Your task to perform on an android device: turn notification dots on Image 0: 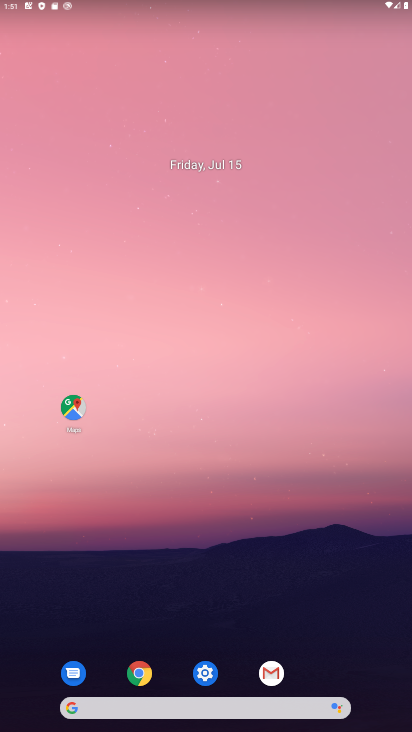
Step 0: press home button
Your task to perform on an android device: turn notification dots on Image 1: 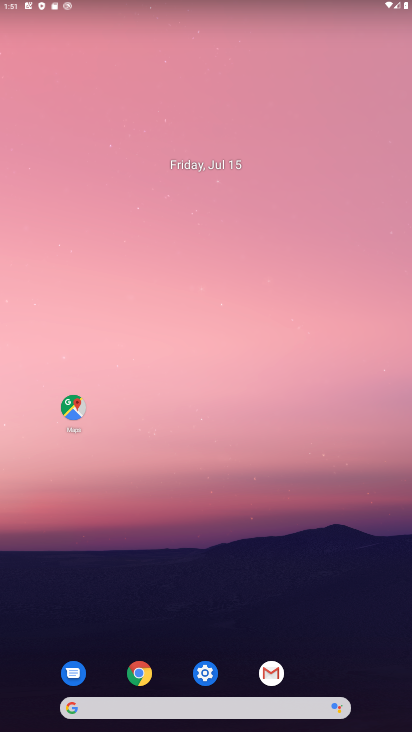
Step 1: click (203, 679)
Your task to perform on an android device: turn notification dots on Image 2: 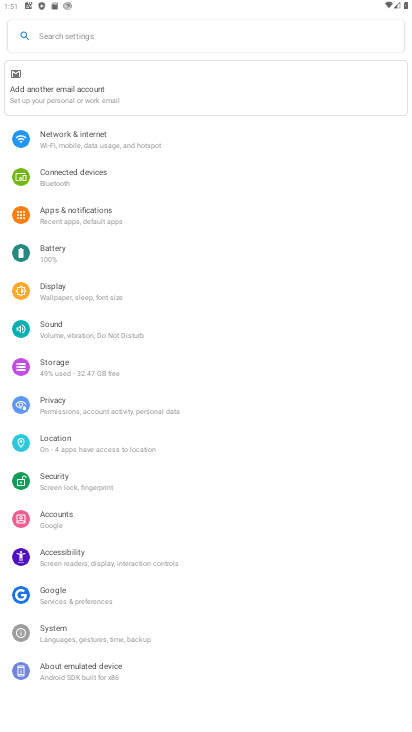
Step 2: click (63, 41)
Your task to perform on an android device: turn notification dots on Image 3: 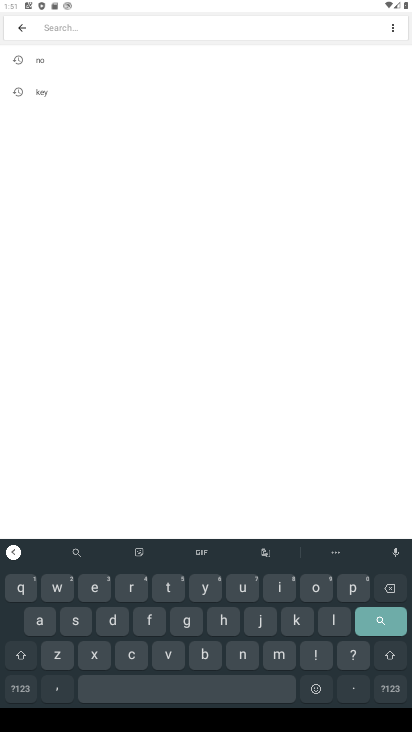
Step 3: click (69, 69)
Your task to perform on an android device: turn notification dots on Image 4: 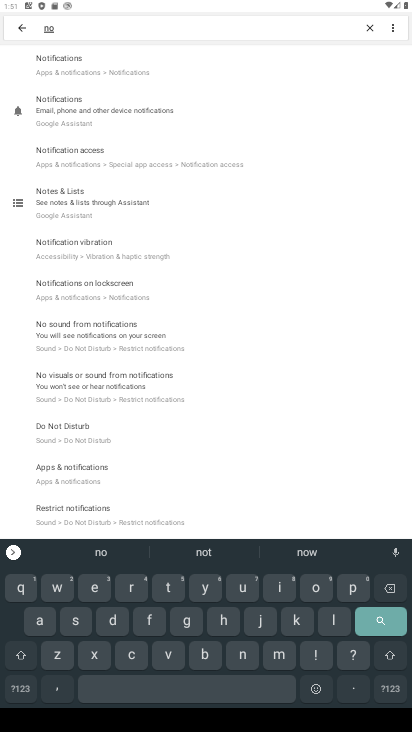
Step 4: click (369, 37)
Your task to perform on an android device: turn notification dots on Image 5: 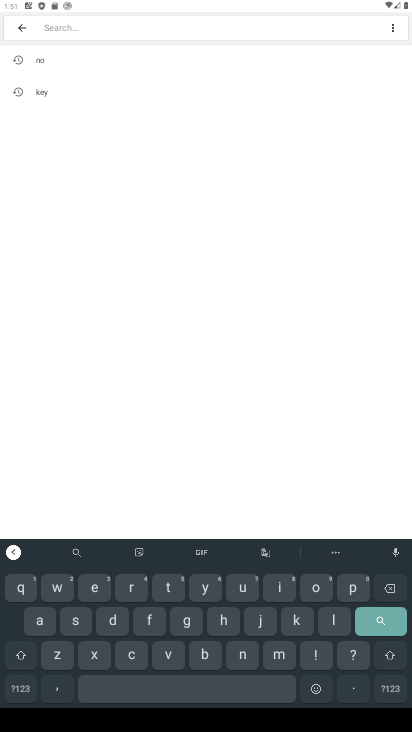
Step 5: click (245, 660)
Your task to perform on an android device: turn notification dots on Image 6: 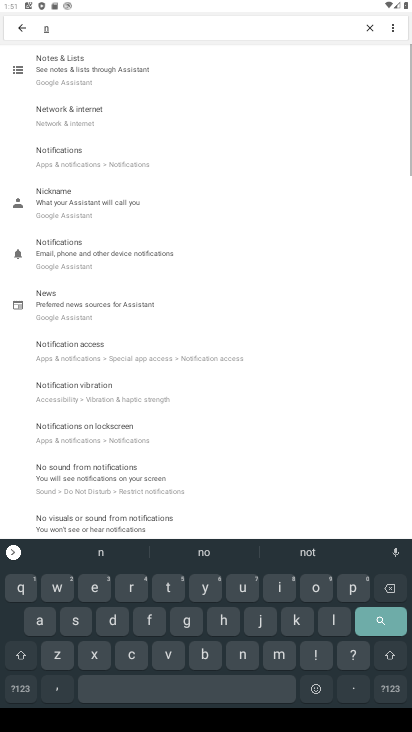
Step 6: click (312, 591)
Your task to perform on an android device: turn notification dots on Image 7: 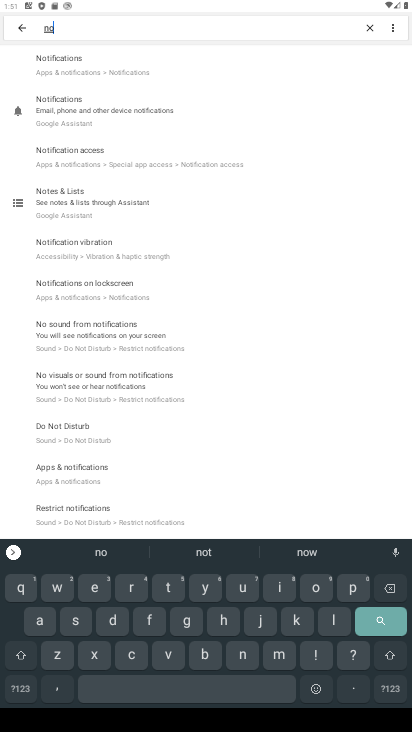
Step 7: click (86, 74)
Your task to perform on an android device: turn notification dots on Image 8: 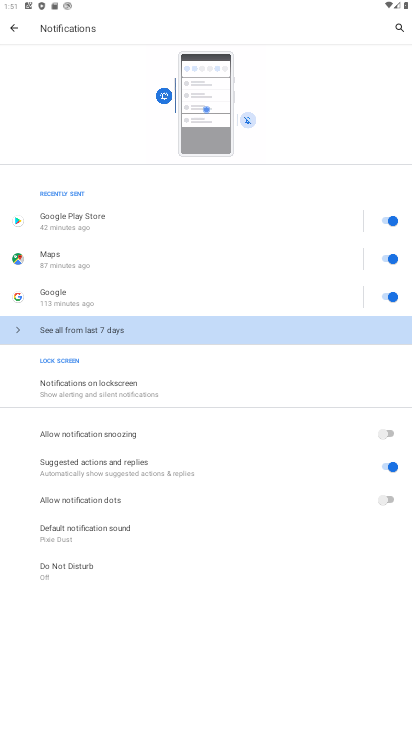
Step 8: click (200, 509)
Your task to perform on an android device: turn notification dots on Image 9: 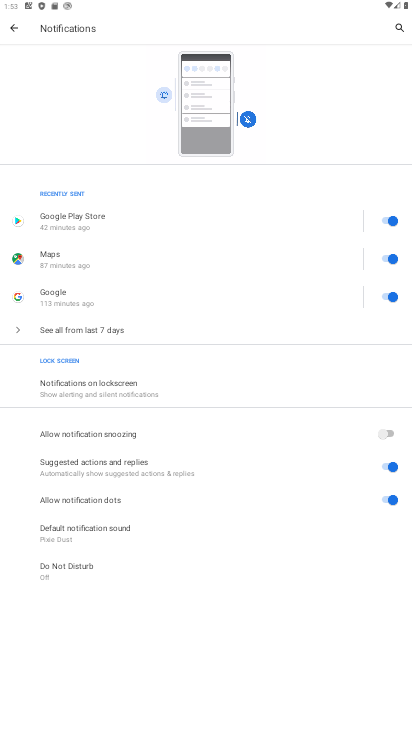
Step 9: task complete